Your task to perform on an android device: uninstall "McDonald's" Image 0: 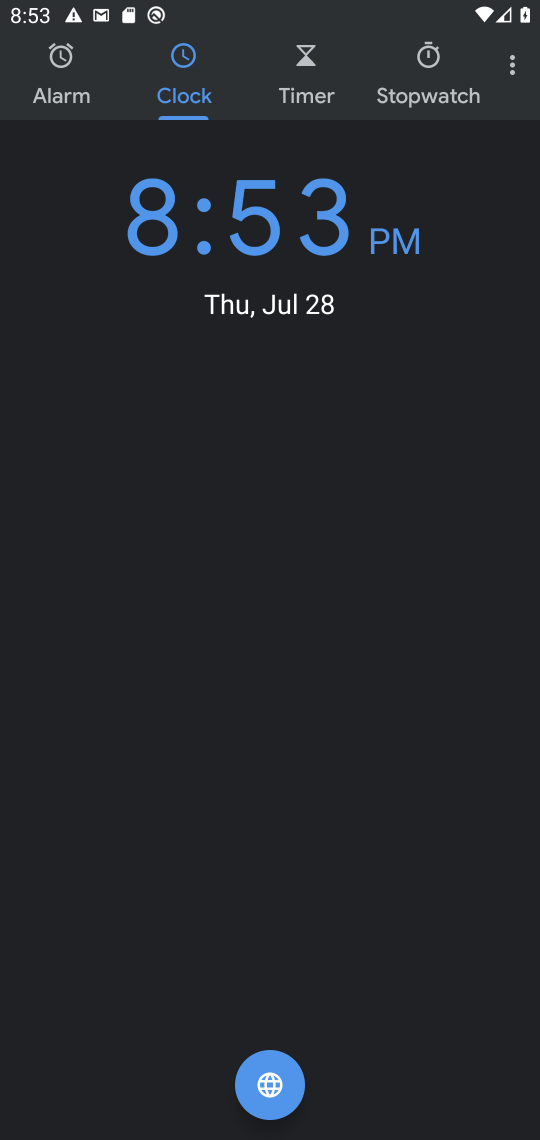
Step 0: press home button
Your task to perform on an android device: uninstall "McDonald's" Image 1: 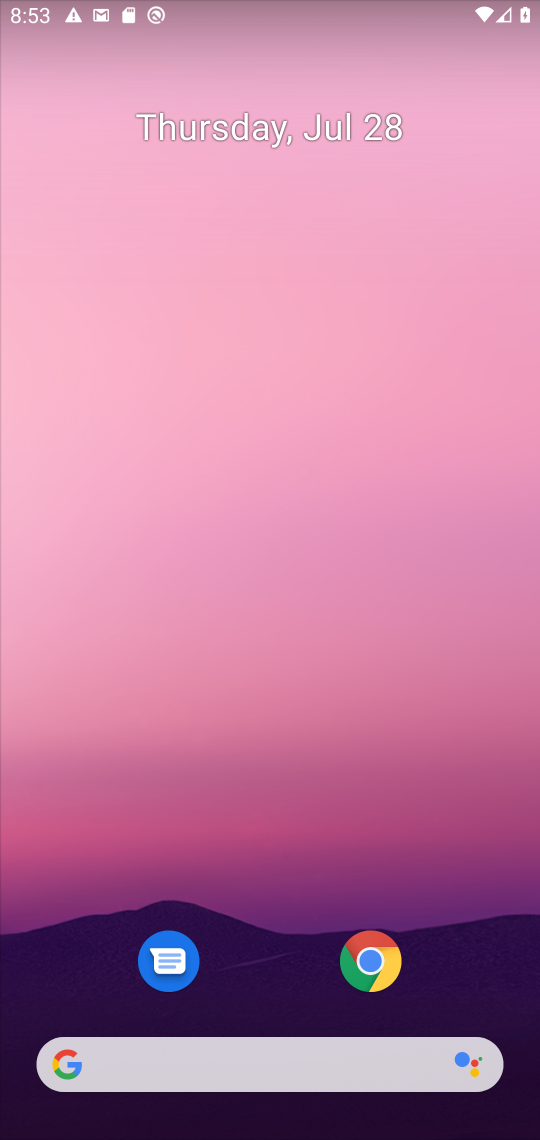
Step 1: click (286, 50)
Your task to perform on an android device: uninstall "McDonald's" Image 2: 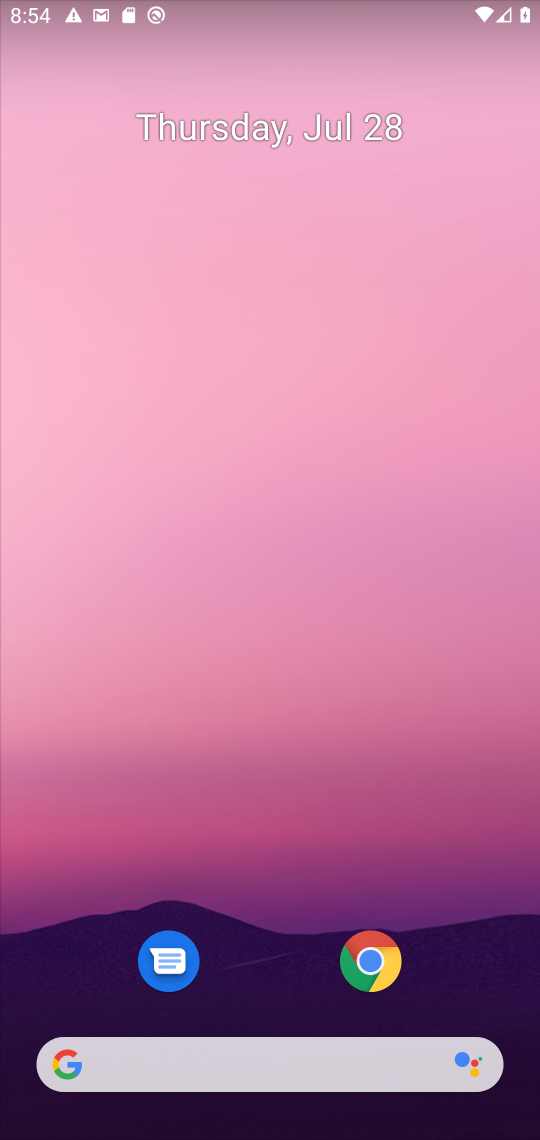
Step 2: drag from (245, 706) to (288, 56)
Your task to perform on an android device: uninstall "McDonald's" Image 3: 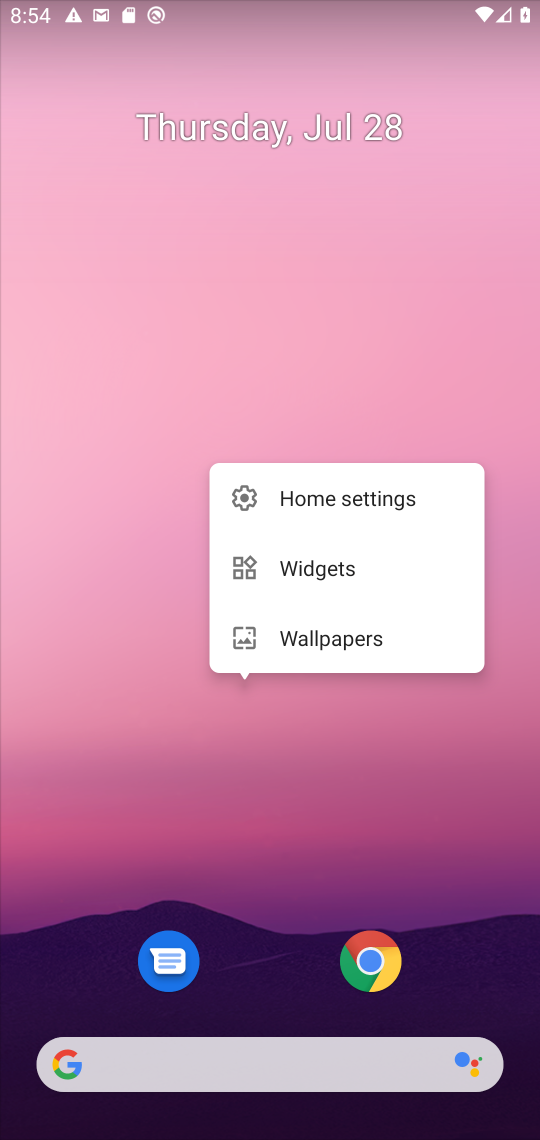
Step 3: drag from (208, 147) to (231, 99)
Your task to perform on an android device: uninstall "McDonald's" Image 4: 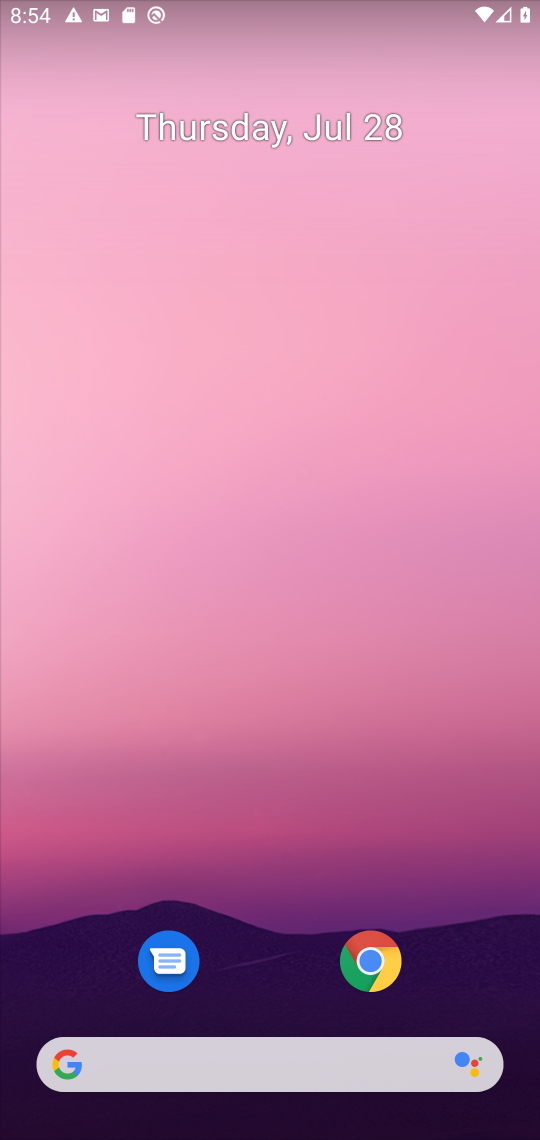
Step 4: drag from (264, 934) to (249, 5)
Your task to perform on an android device: uninstall "McDonald's" Image 5: 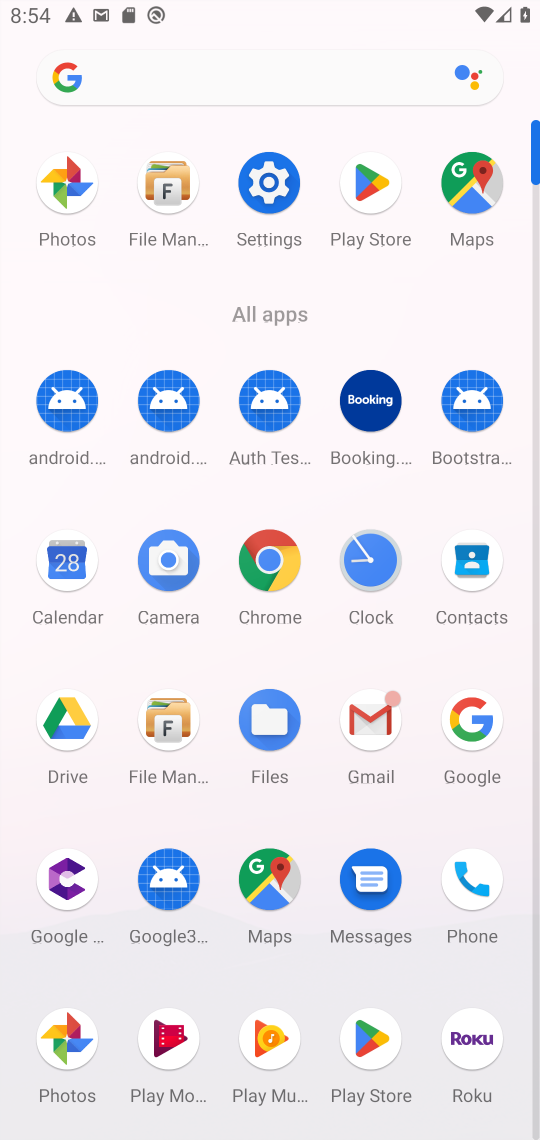
Step 5: click (378, 263)
Your task to perform on an android device: uninstall "McDonald's" Image 6: 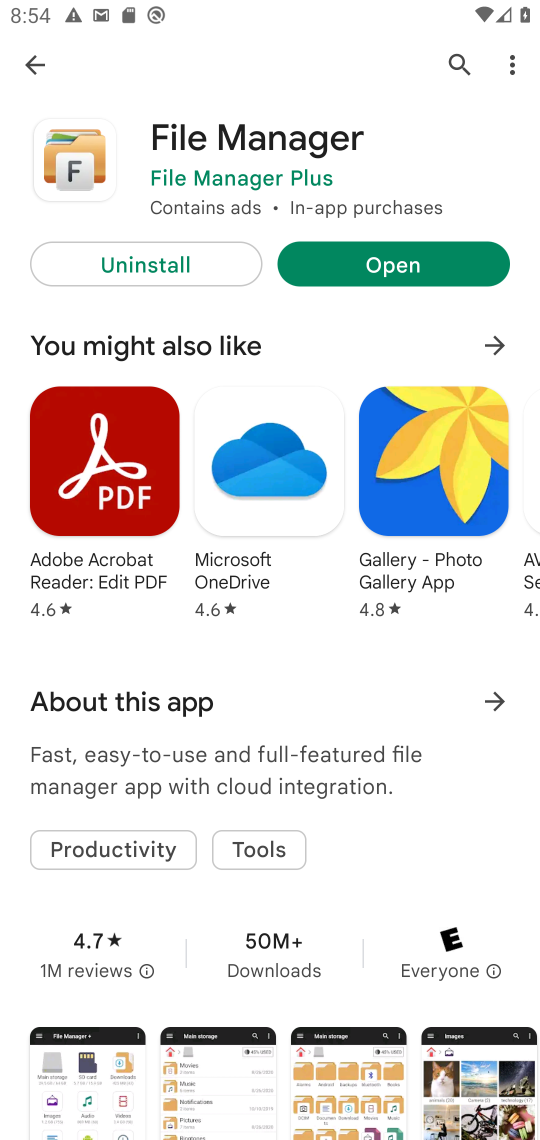
Step 6: click (458, 81)
Your task to perform on an android device: uninstall "McDonald's" Image 7: 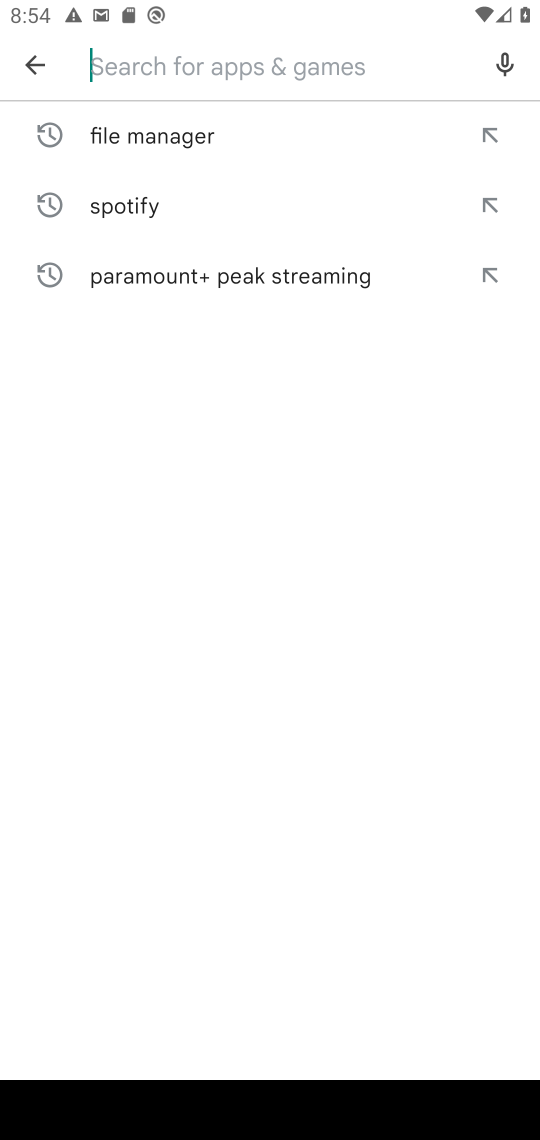
Step 7: type "mc donalds"
Your task to perform on an android device: uninstall "McDonald's" Image 8: 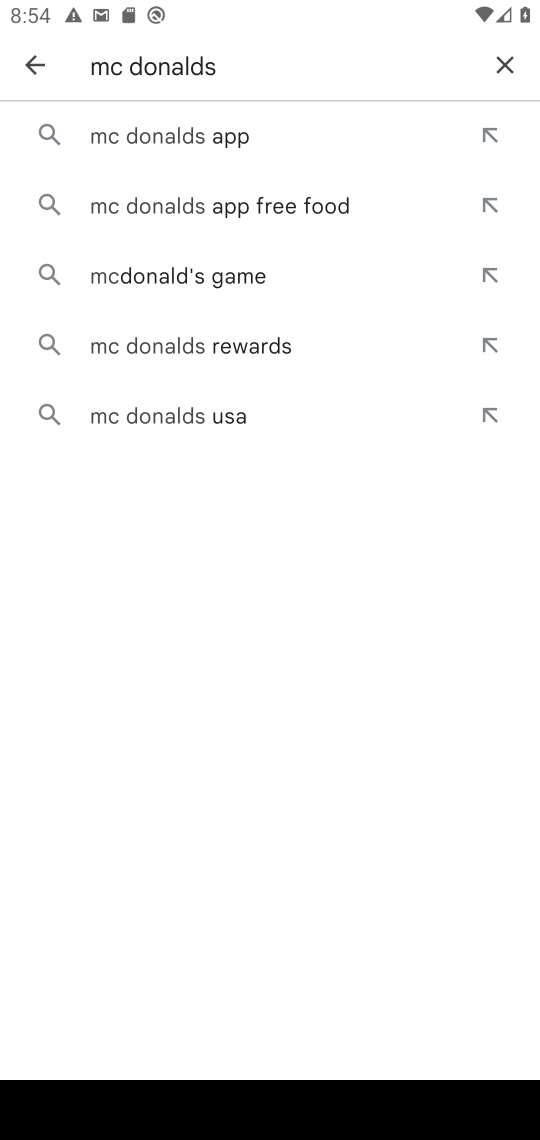
Step 8: click (160, 132)
Your task to perform on an android device: uninstall "McDonald's" Image 9: 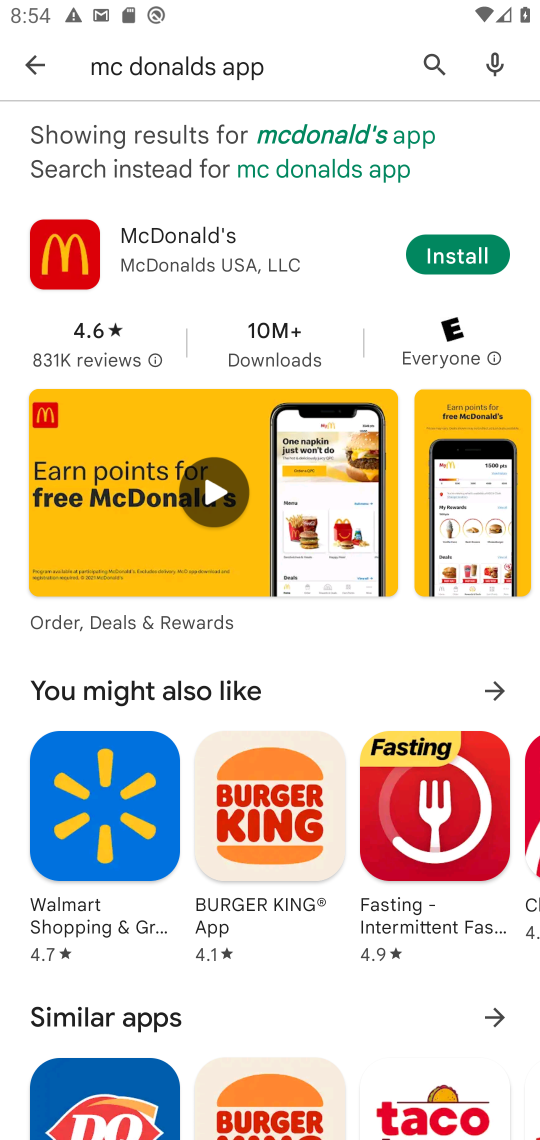
Step 9: task complete